Your task to perform on an android device: Go to notification settings Image 0: 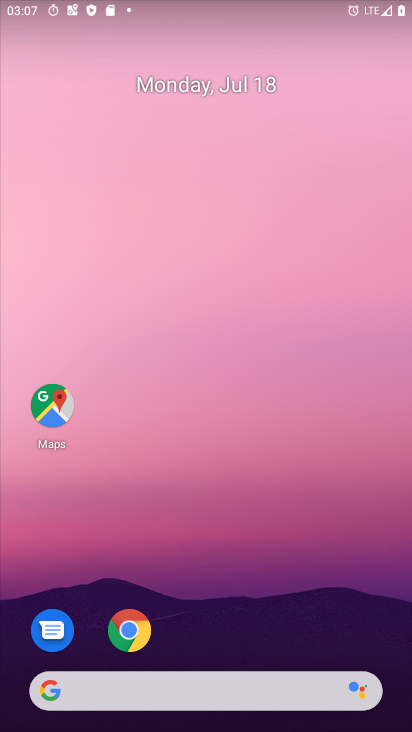
Step 0: drag from (212, 614) to (275, 39)
Your task to perform on an android device: Go to notification settings Image 1: 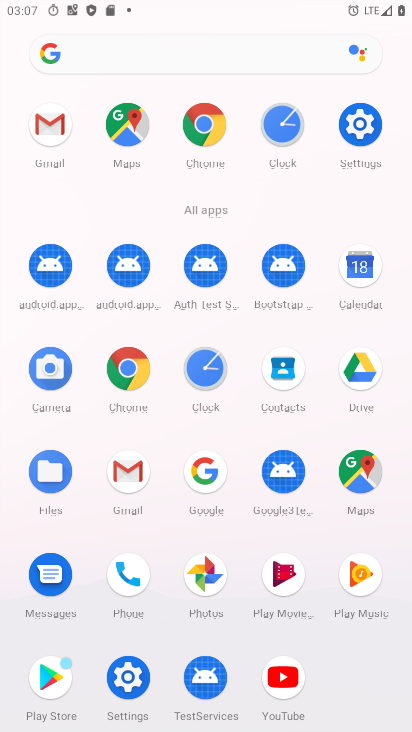
Step 1: click (351, 115)
Your task to perform on an android device: Go to notification settings Image 2: 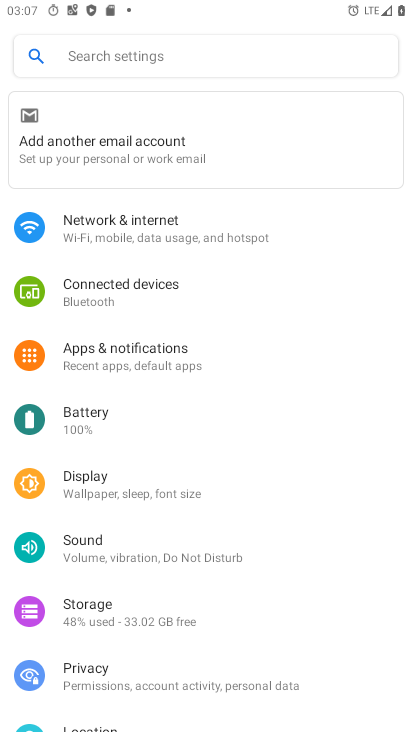
Step 2: click (104, 355)
Your task to perform on an android device: Go to notification settings Image 3: 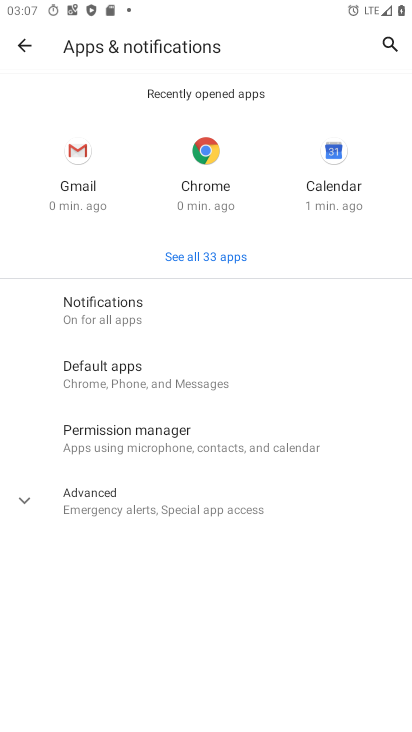
Step 3: task complete